Your task to perform on an android device: turn off location history Image 0: 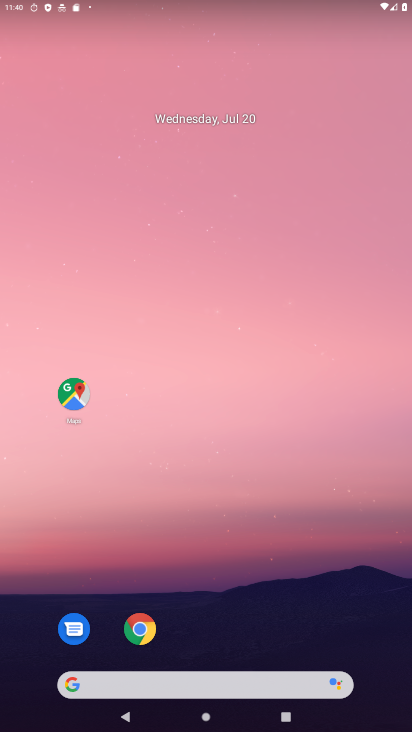
Step 0: drag from (137, 690) to (191, 69)
Your task to perform on an android device: turn off location history Image 1: 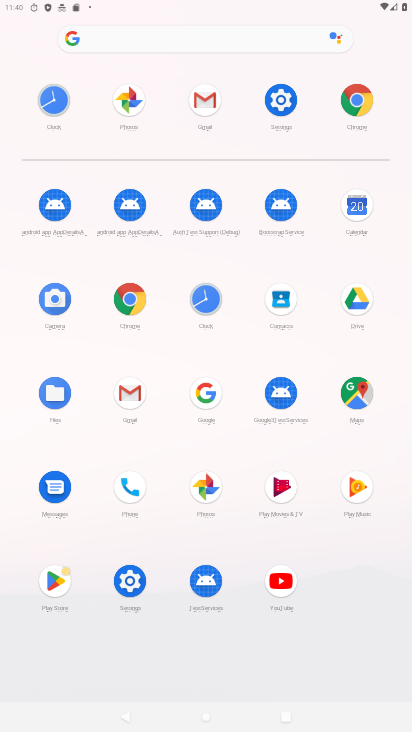
Step 1: click (290, 104)
Your task to perform on an android device: turn off location history Image 2: 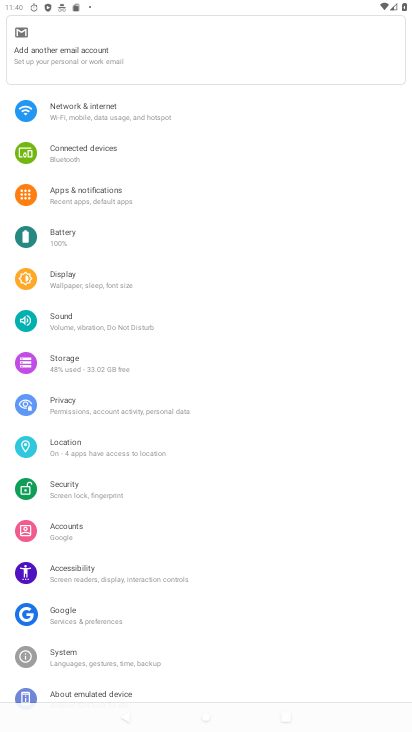
Step 2: click (82, 443)
Your task to perform on an android device: turn off location history Image 3: 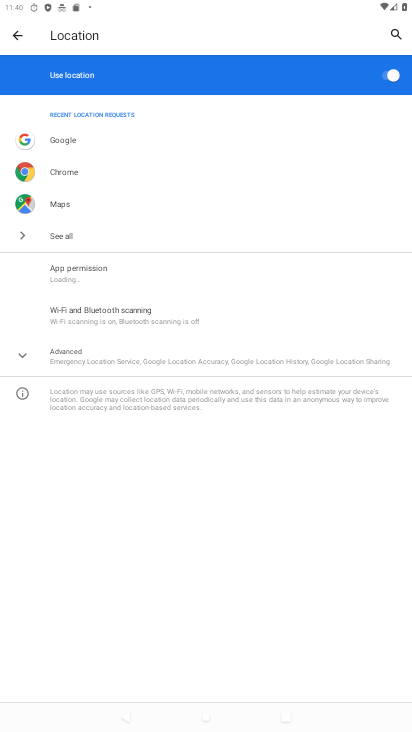
Step 3: click (117, 351)
Your task to perform on an android device: turn off location history Image 4: 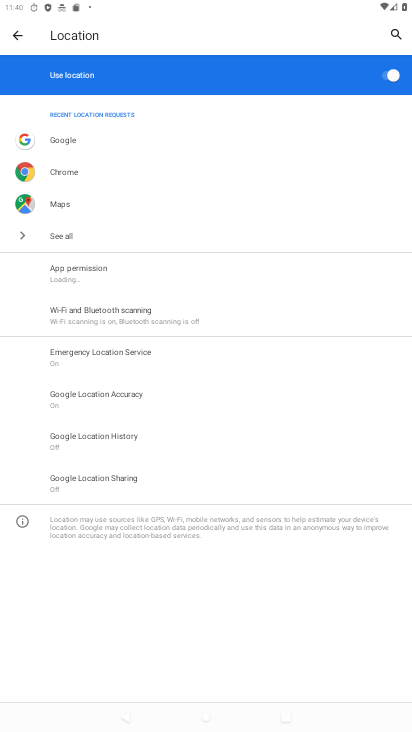
Step 4: click (130, 443)
Your task to perform on an android device: turn off location history Image 5: 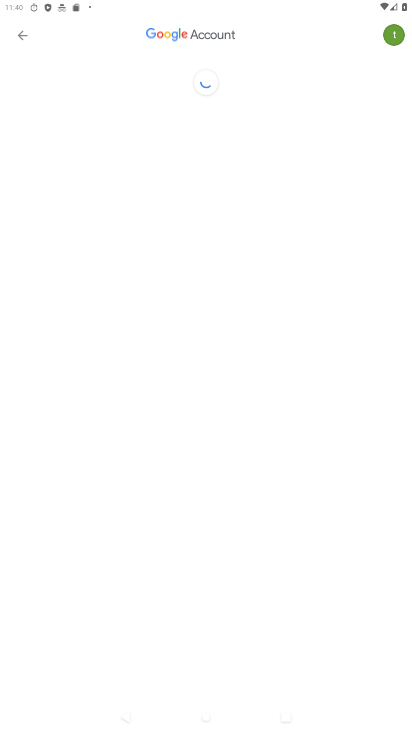
Step 5: click (213, 262)
Your task to perform on an android device: turn off location history Image 6: 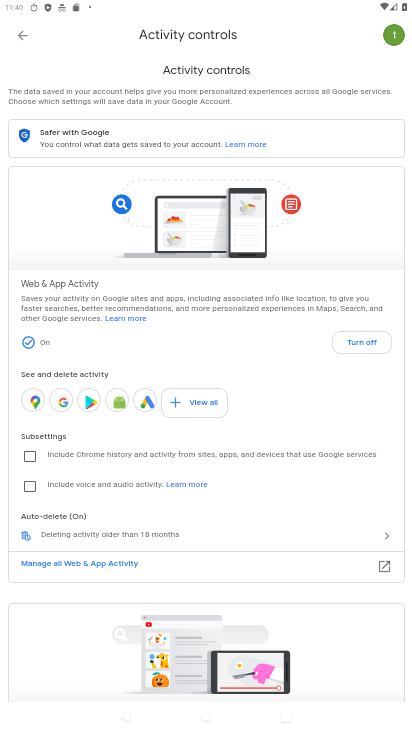
Step 6: click (358, 340)
Your task to perform on an android device: turn off location history Image 7: 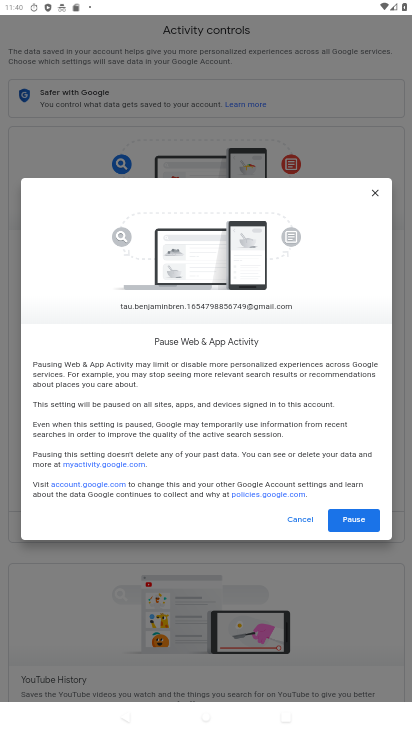
Step 7: drag from (300, 441) to (308, 339)
Your task to perform on an android device: turn off location history Image 8: 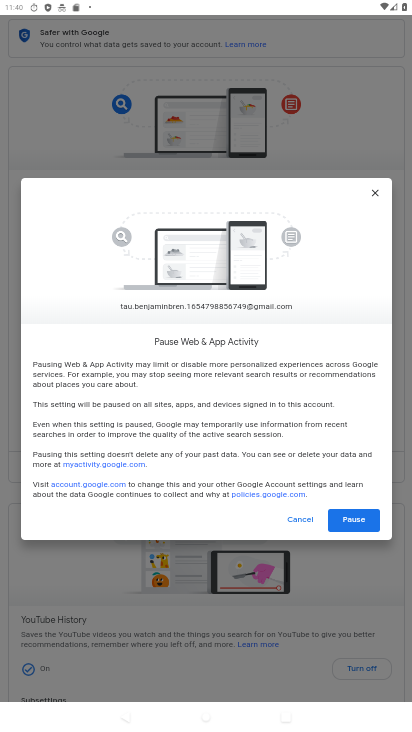
Step 8: click (351, 522)
Your task to perform on an android device: turn off location history Image 9: 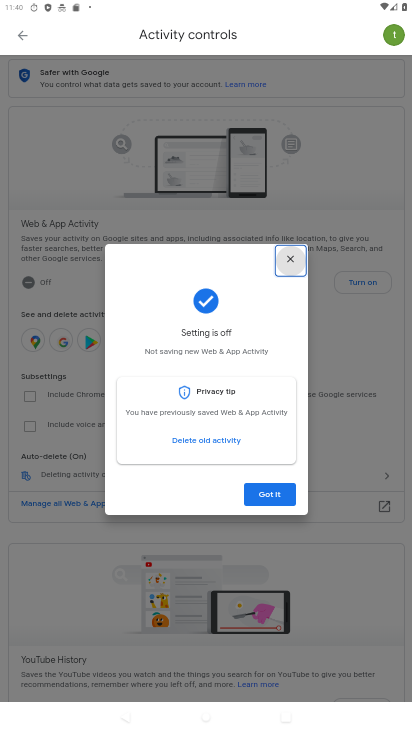
Step 9: click (295, 494)
Your task to perform on an android device: turn off location history Image 10: 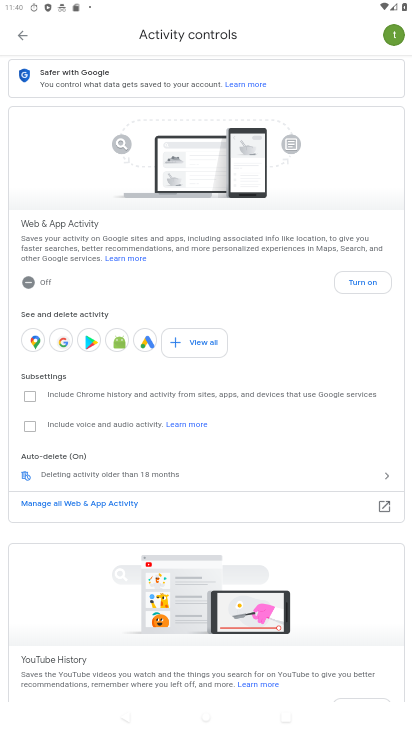
Step 10: task complete